Your task to perform on an android device: set an alarm Image 0: 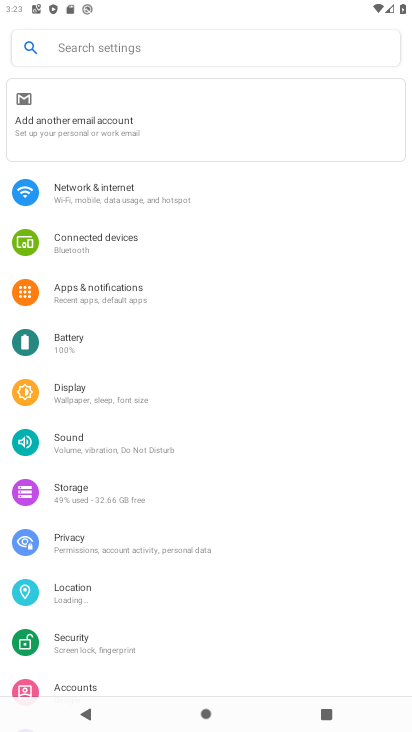
Step 0: press home button
Your task to perform on an android device: set an alarm Image 1: 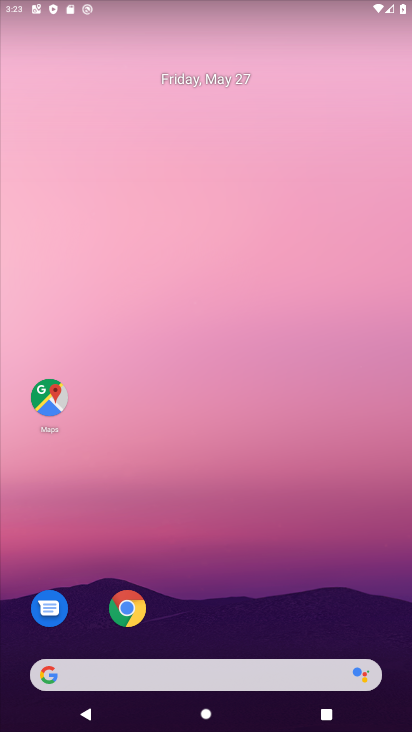
Step 1: drag from (183, 671) to (257, 313)
Your task to perform on an android device: set an alarm Image 2: 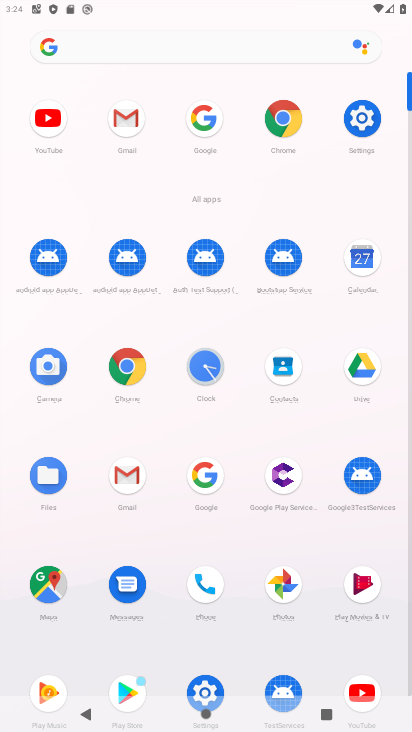
Step 2: click (206, 376)
Your task to perform on an android device: set an alarm Image 3: 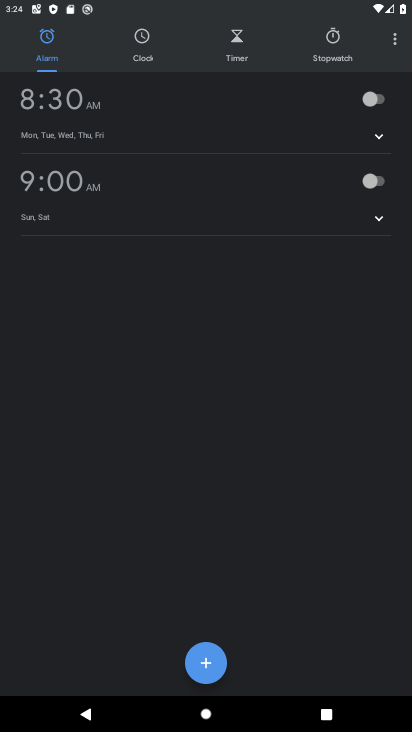
Step 3: click (211, 669)
Your task to perform on an android device: set an alarm Image 4: 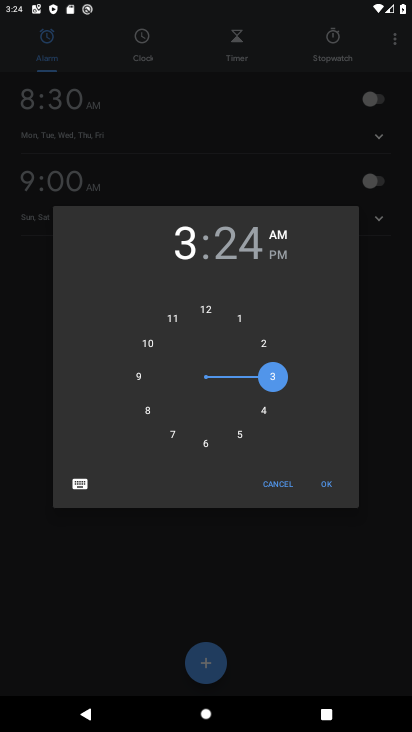
Step 4: click (206, 303)
Your task to perform on an android device: set an alarm Image 5: 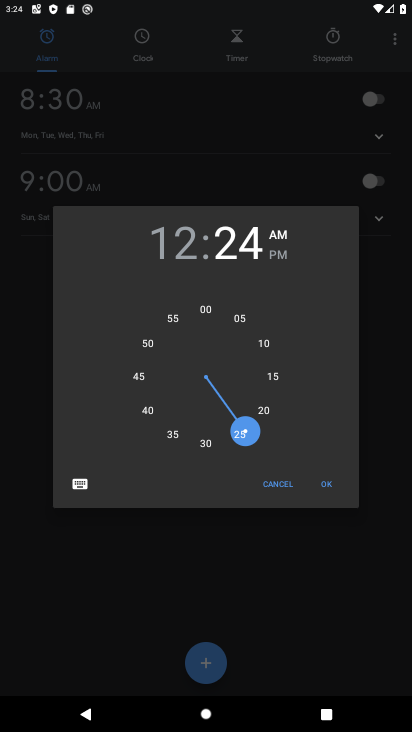
Step 5: click (333, 482)
Your task to perform on an android device: set an alarm Image 6: 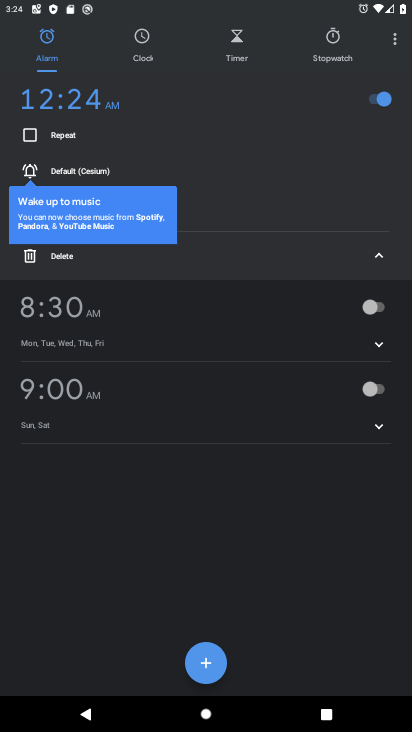
Step 6: task complete